Your task to perform on an android device: uninstall "Facebook Messenger" Image 0: 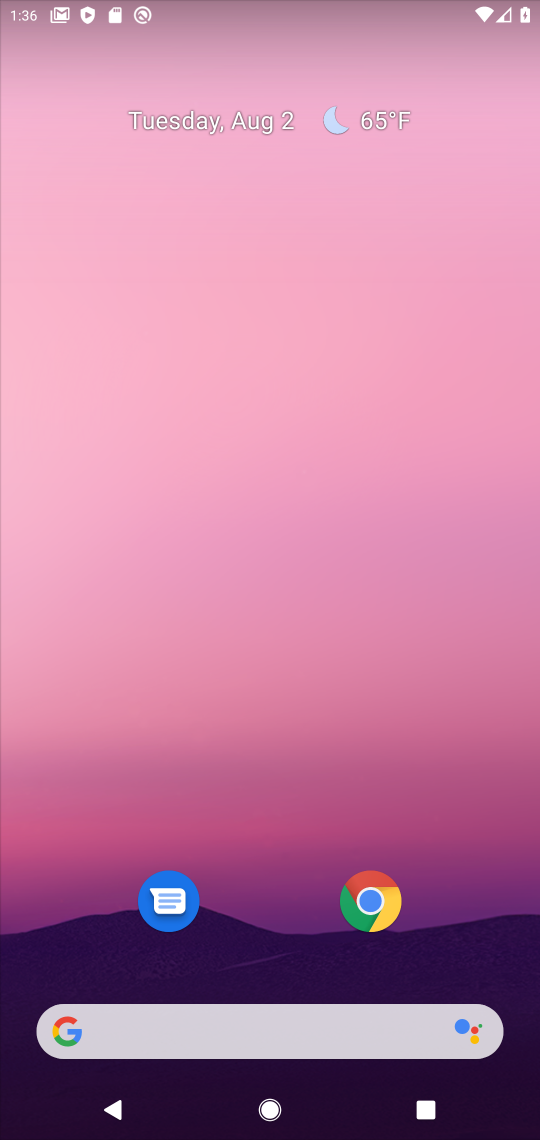
Step 0: drag from (240, 959) to (315, 24)
Your task to perform on an android device: uninstall "Facebook Messenger" Image 1: 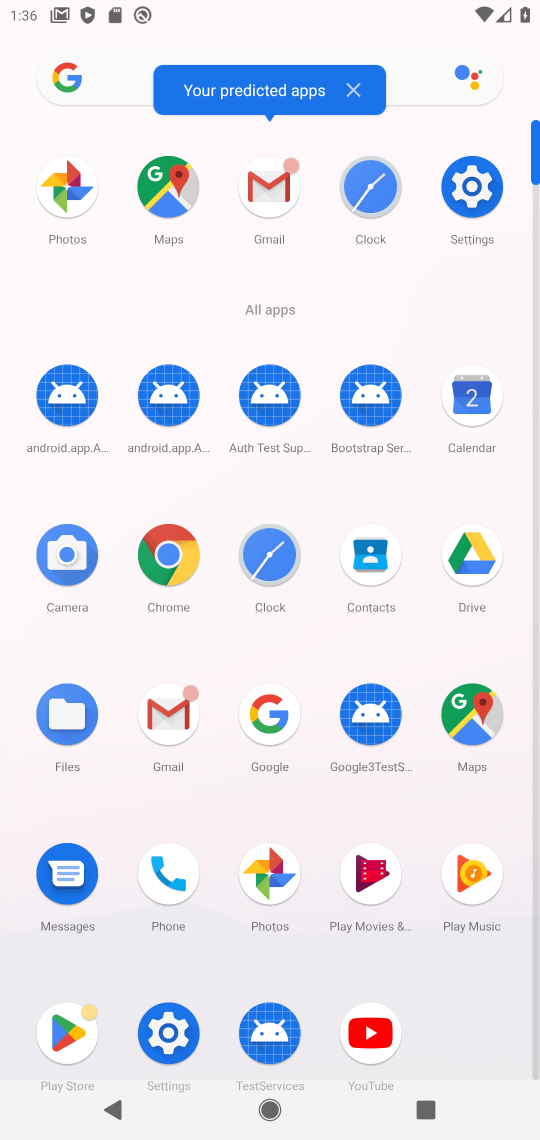
Step 1: click (67, 1008)
Your task to perform on an android device: uninstall "Facebook Messenger" Image 2: 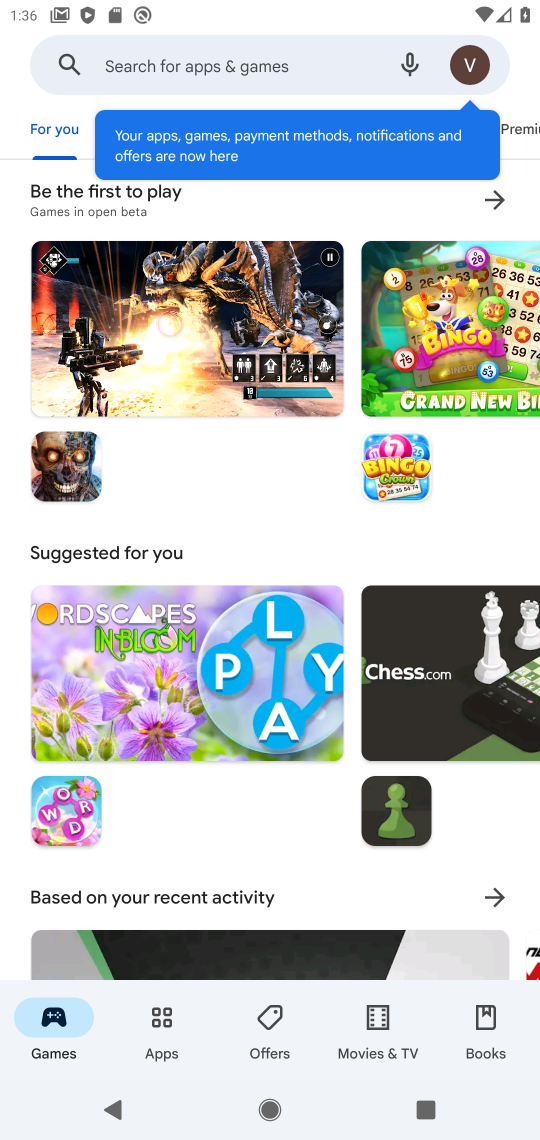
Step 2: click (233, 66)
Your task to perform on an android device: uninstall "Facebook Messenger" Image 3: 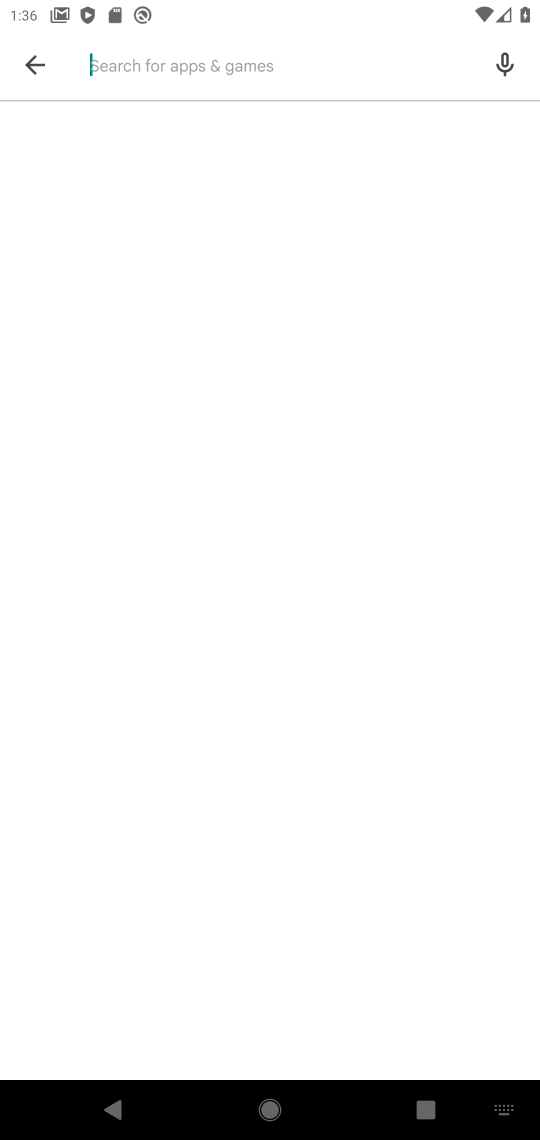
Step 3: type "facebook messenger"
Your task to perform on an android device: uninstall "Facebook Messenger" Image 4: 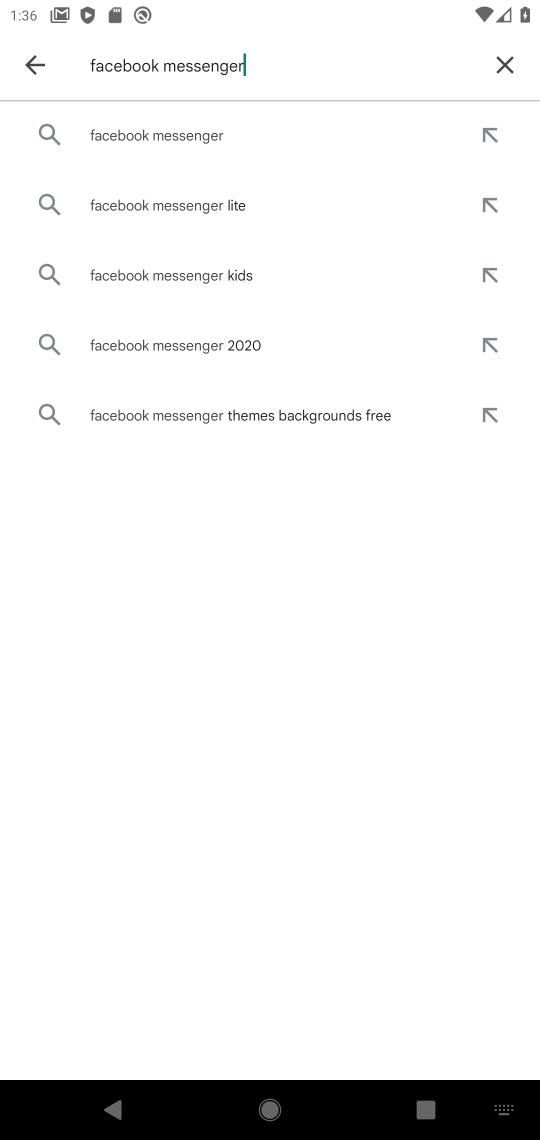
Step 4: click (234, 116)
Your task to perform on an android device: uninstall "Facebook Messenger" Image 5: 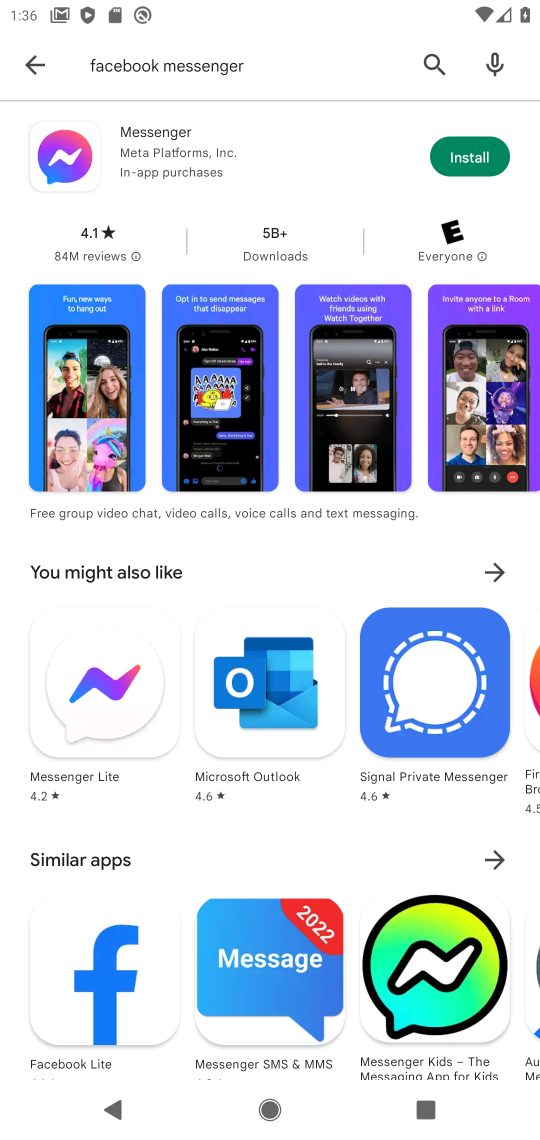
Step 5: click (191, 135)
Your task to perform on an android device: uninstall "Facebook Messenger" Image 6: 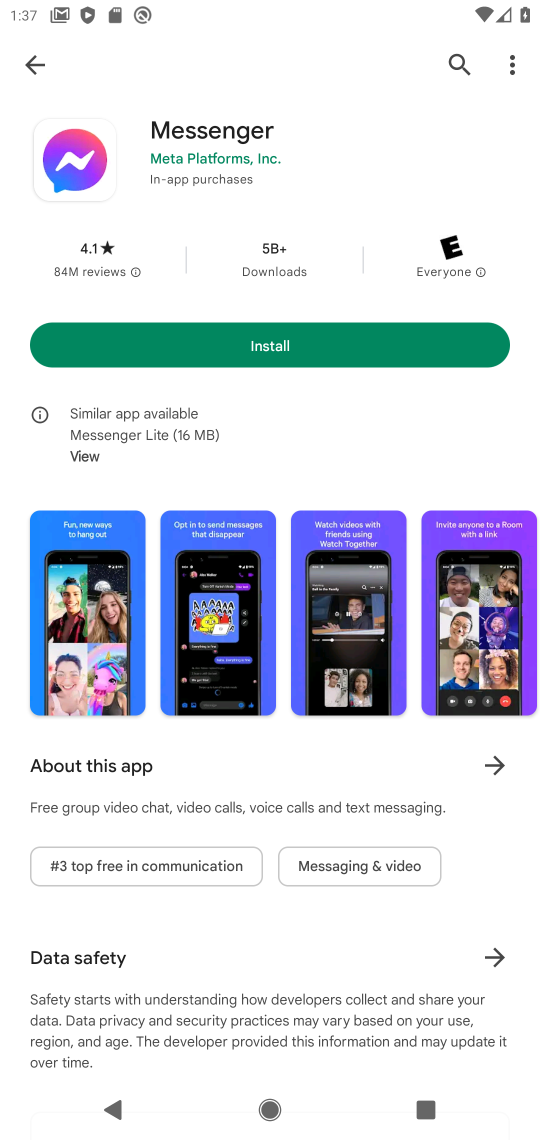
Step 6: task complete